Your task to perform on an android device: change notifications settings Image 0: 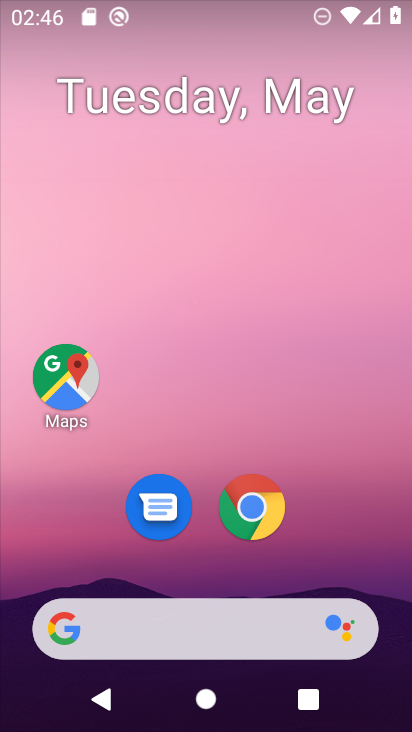
Step 0: drag from (197, 565) to (208, 199)
Your task to perform on an android device: change notifications settings Image 1: 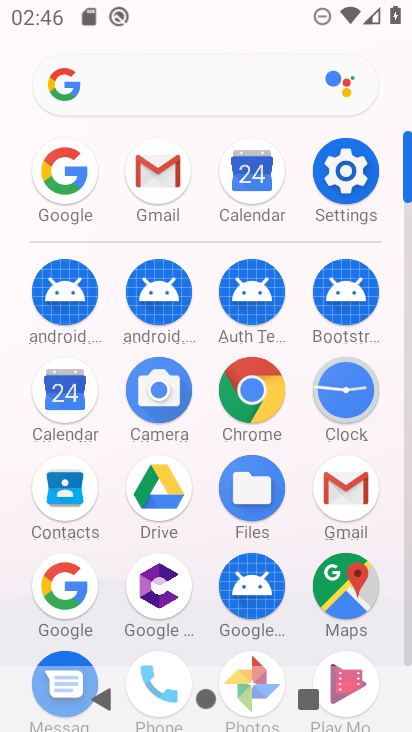
Step 1: click (328, 198)
Your task to perform on an android device: change notifications settings Image 2: 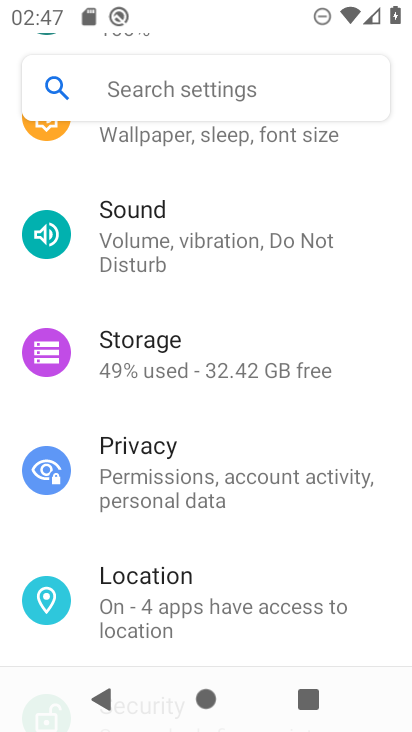
Step 2: drag from (200, 214) to (244, 538)
Your task to perform on an android device: change notifications settings Image 3: 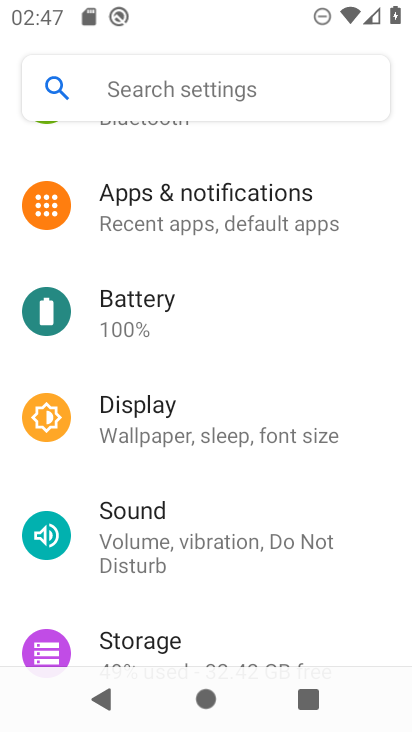
Step 3: click (240, 231)
Your task to perform on an android device: change notifications settings Image 4: 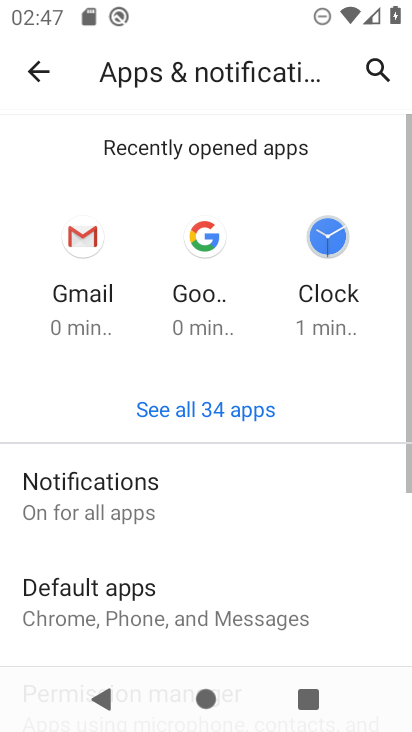
Step 4: click (159, 483)
Your task to perform on an android device: change notifications settings Image 5: 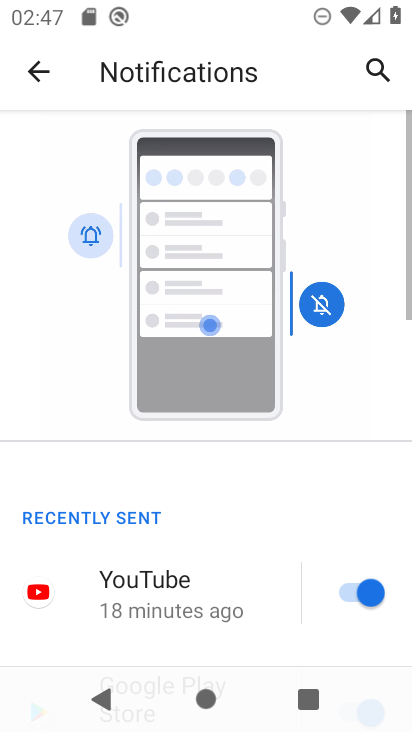
Step 5: task complete